Your task to perform on an android device: turn off wifi Image 0: 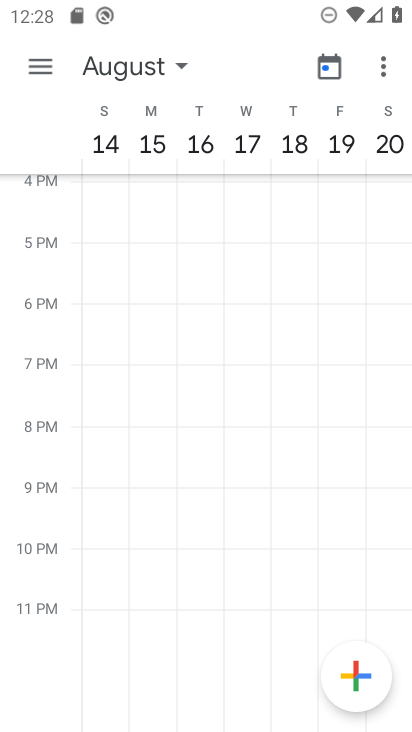
Step 0: press home button
Your task to perform on an android device: turn off wifi Image 1: 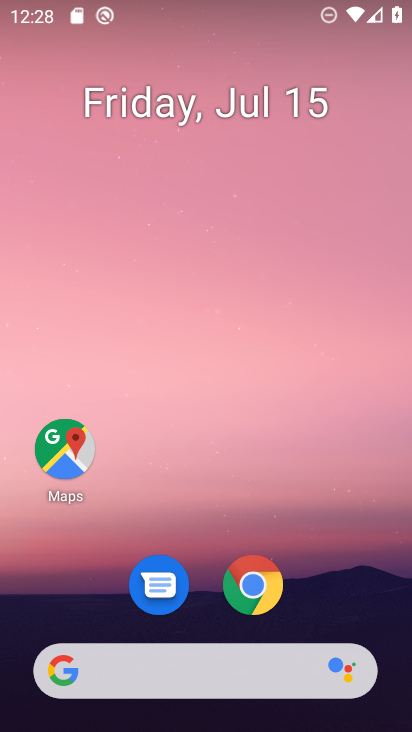
Step 1: drag from (254, 512) to (228, 22)
Your task to perform on an android device: turn off wifi Image 2: 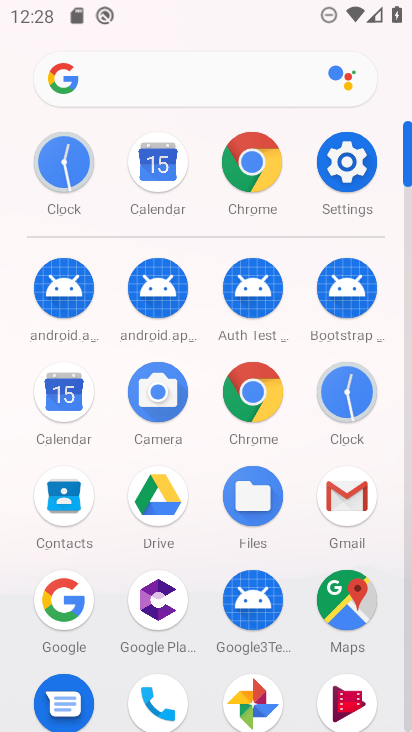
Step 2: click (340, 164)
Your task to perform on an android device: turn off wifi Image 3: 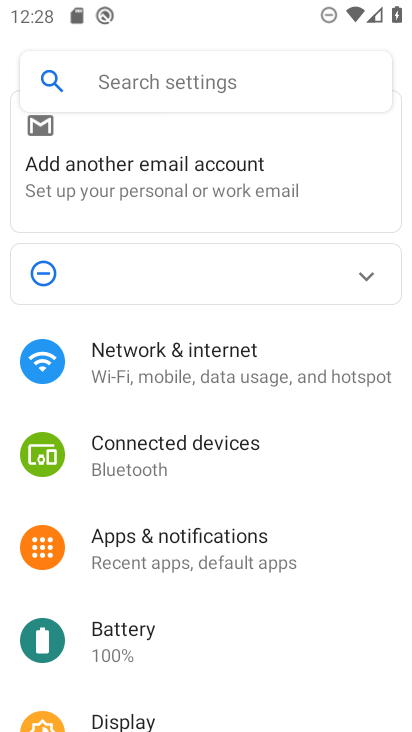
Step 3: click (229, 348)
Your task to perform on an android device: turn off wifi Image 4: 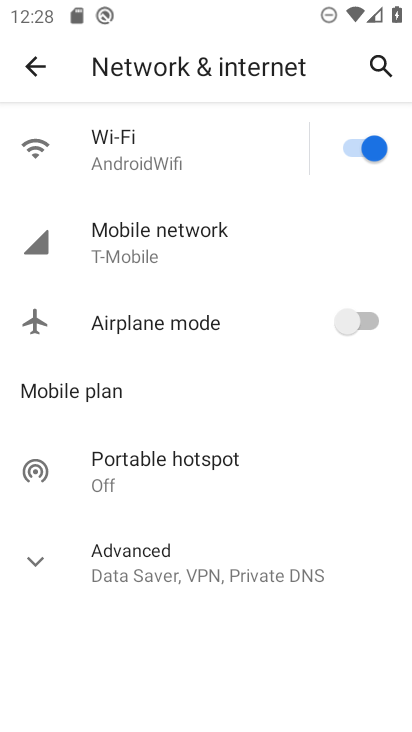
Step 4: click (136, 152)
Your task to perform on an android device: turn off wifi Image 5: 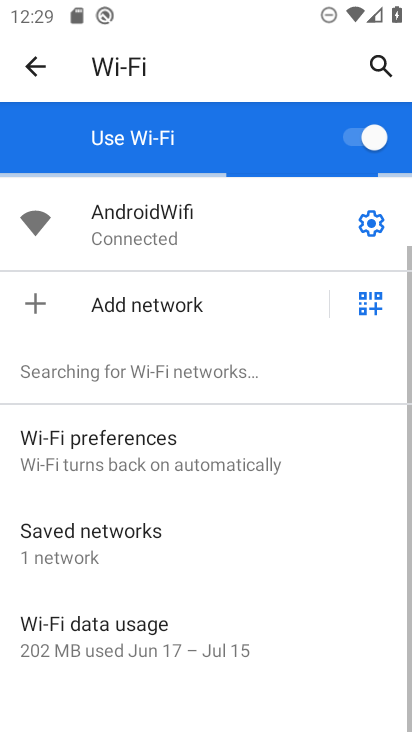
Step 5: click (362, 140)
Your task to perform on an android device: turn off wifi Image 6: 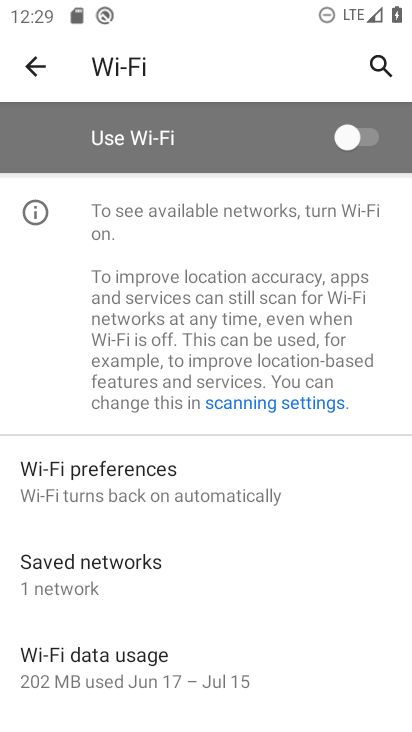
Step 6: task complete